Your task to perform on an android device: Open the web browser Image 0: 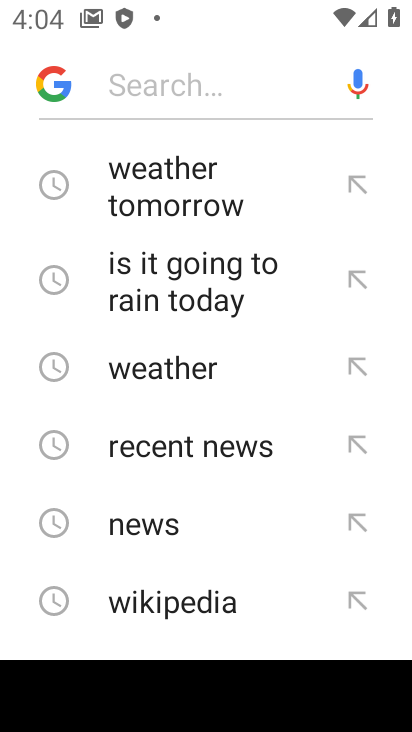
Step 0: press back button
Your task to perform on an android device: Open the web browser Image 1: 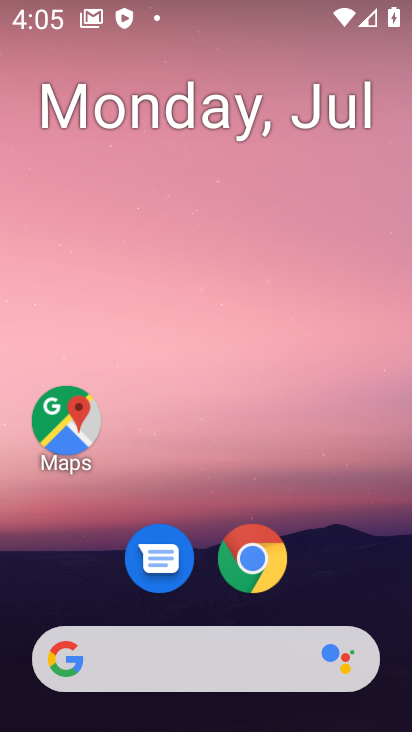
Step 1: click (247, 558)
Your task to perform on an android device: Open the web browser Image 2: 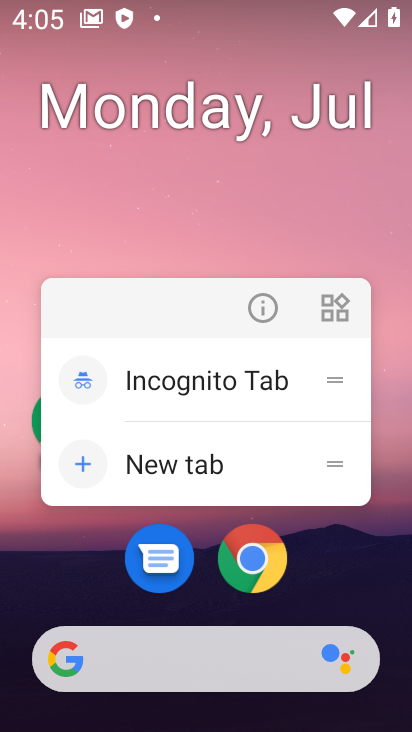
Step 2: click (225, 558)
Your task to perform on an android device: Open the web browser Image 3: 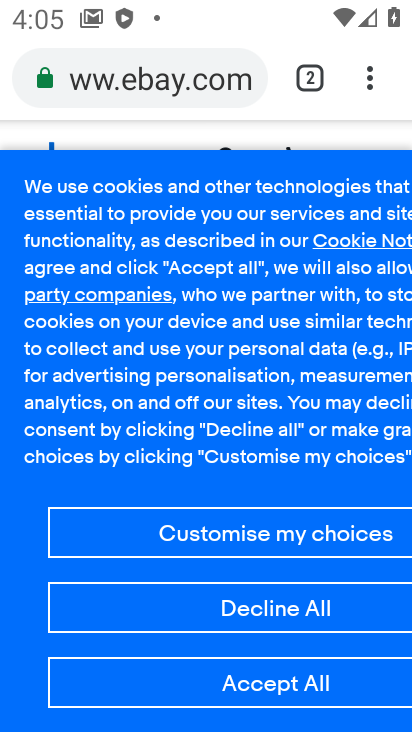
Step 3: task complete